Your task to perform on an android device: Is it going to rain today? Image 0: 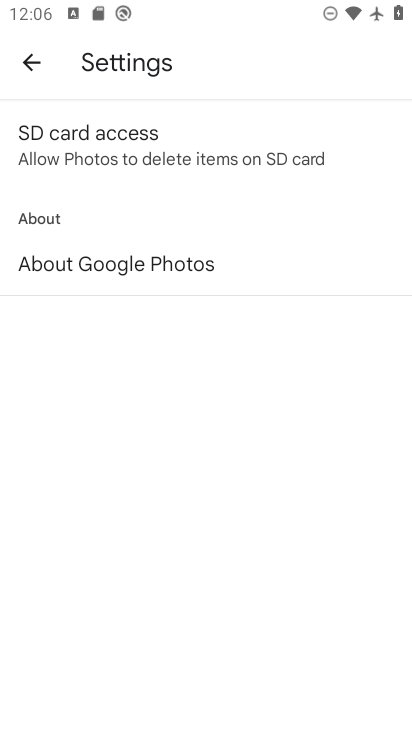
Step 0: press home button
Your task to perform on an android device: Is it going to rain today? Image 1: 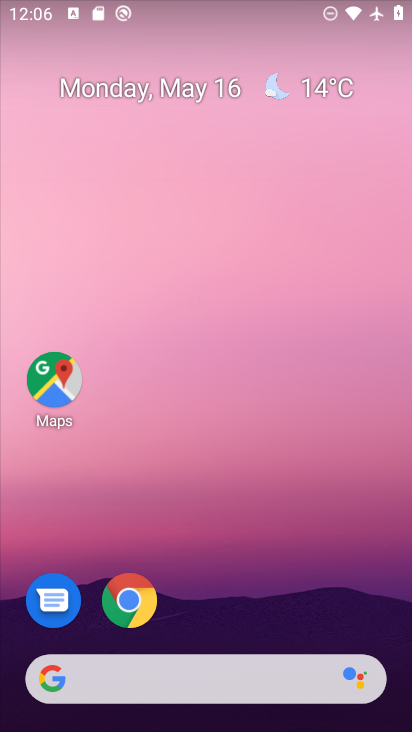
Step 1: click (315, 89)
Your task to perform on an android device: Is it going to rain today? Image 2: 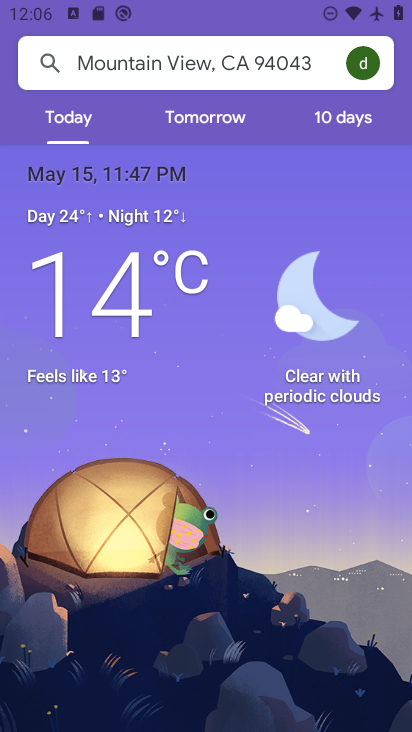
Step 2: drag from (230, 656) to (238, 402)
Your task to perform on an android device: Is it going to rain today? Image 3: 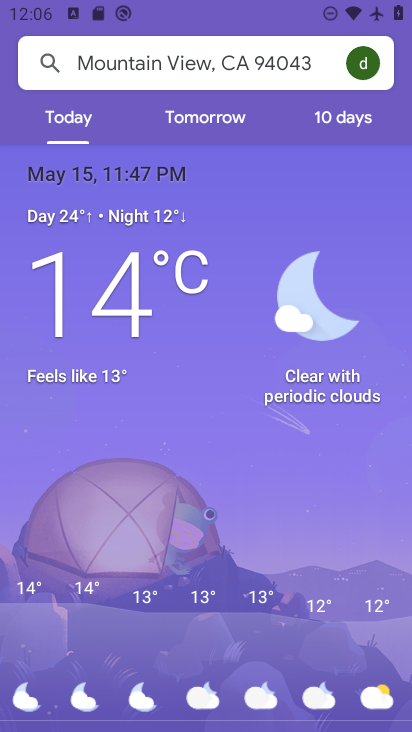
Step 3: click (238, 402)
Your task to perform on an android device: Is it going to rain today? Image 4: 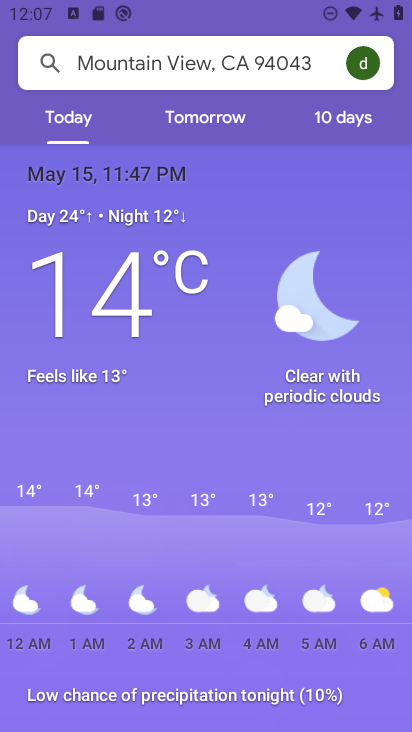
Step 4: task complete